Your task to perform on an android device: find photos in the google photos app Image 0: 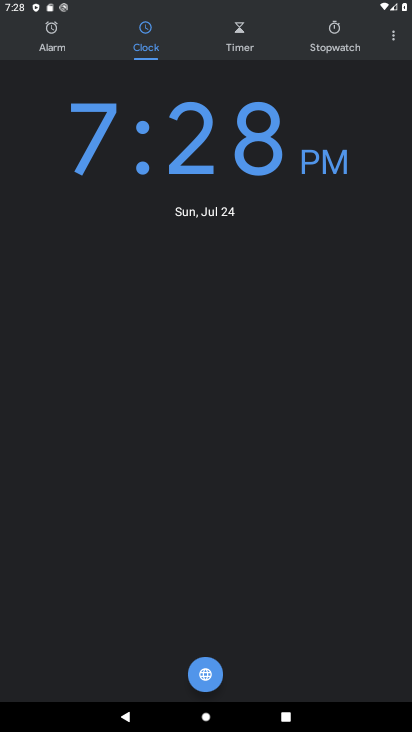
Step 0: press home button
Your task to perform on an android device: find photos in the google photos app Image 1: 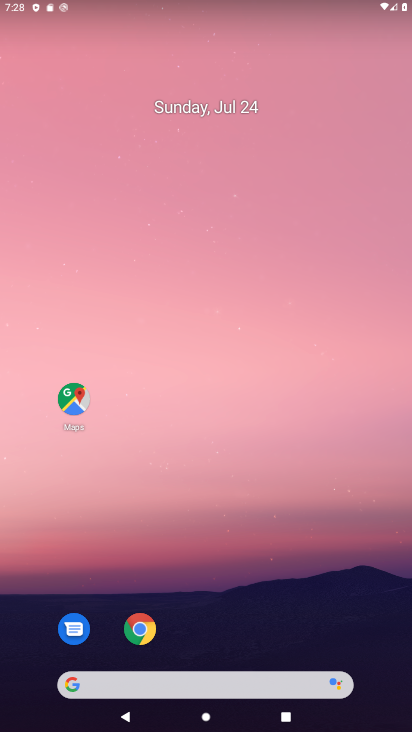
Step 1: drag from (373, 629) to (385, 51)
Your task to perform on an android device: find photos in the google photos app Image 2: 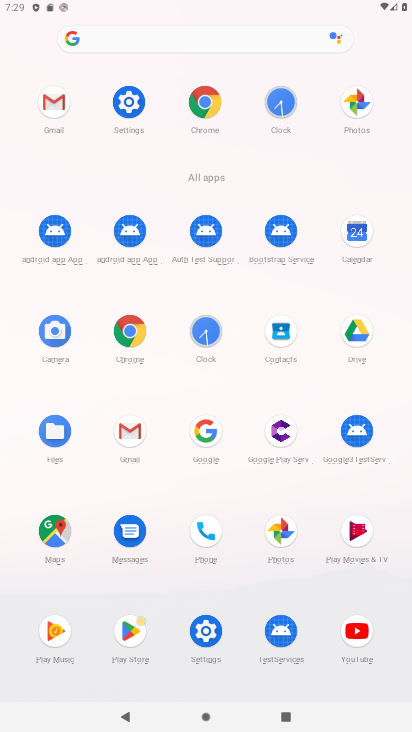
Step 2: click (354, 103)
Your task to perform on an android device: find photos in the google photos app Image 3: 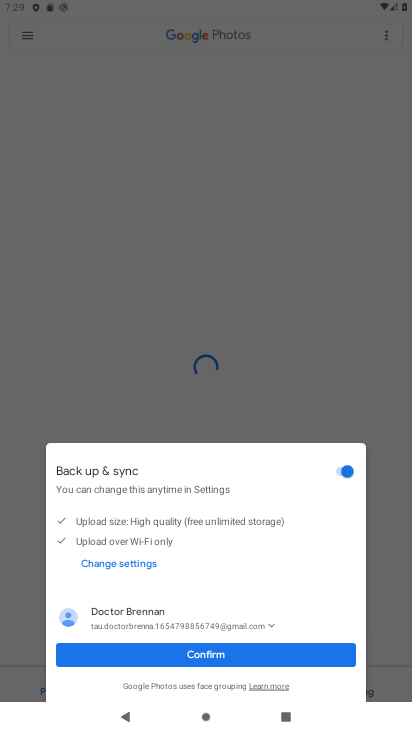
Step 3: click (228, 653)
Your task to perform on an android device: find photos in the google photos app Image 4: 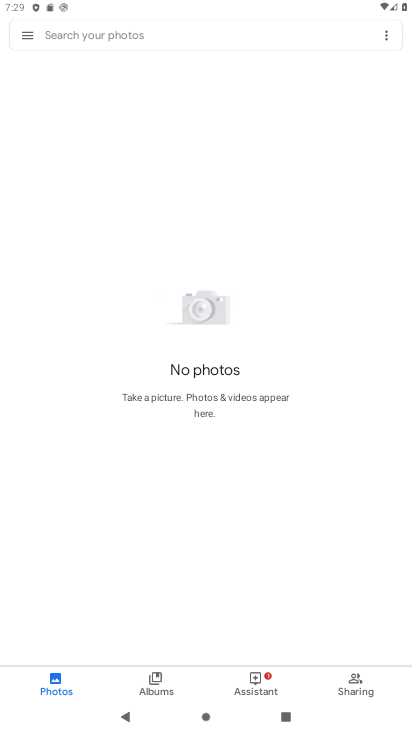
Step 4: task complete